Your task to perform on an android device: Open accessibility settings Image 0: 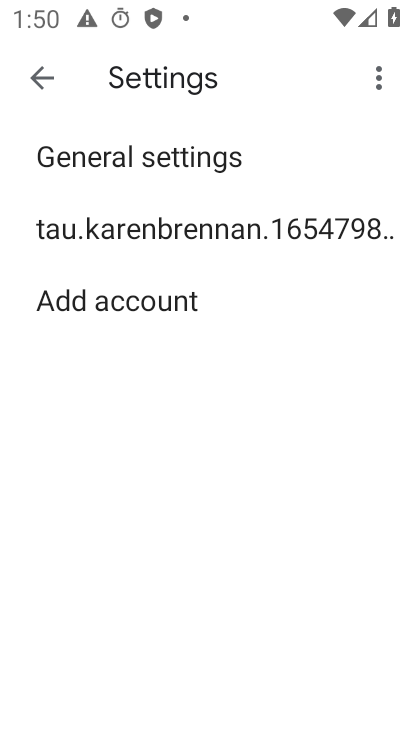
Step 0: press home button
Your task to perform on an android device: Open accessibility settings Image 1: 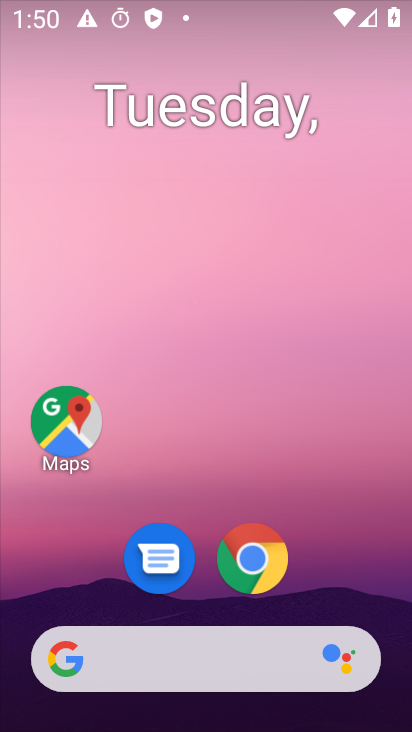
Step 1: drag from (203, 358) to (203, 90)
Your task to perform on an android device: Open accessibility settings Image 2: 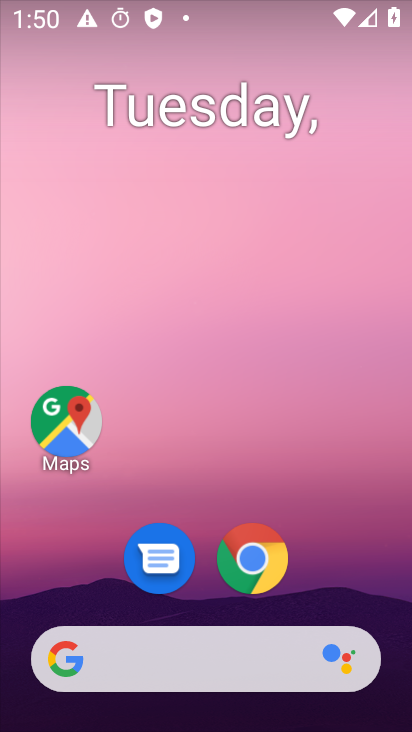
Step 2: drag from (223, 492) to (223, 76)
Your task to perform on an android device: Open accessibility settings Image 3: 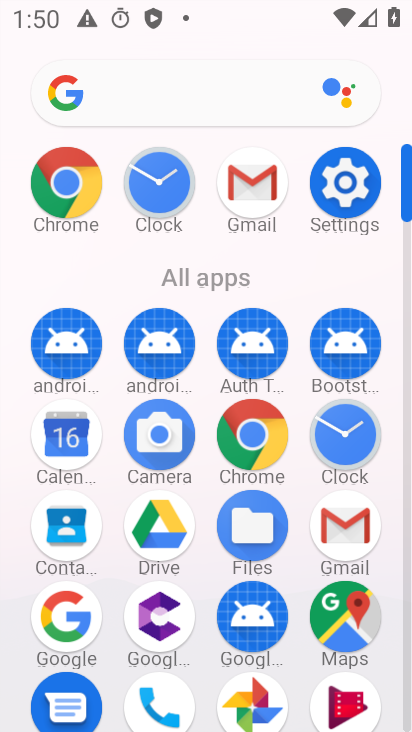
Step 3: click (334, 163)
Your task to perform on an android device: Open accessibility settings Image 4: 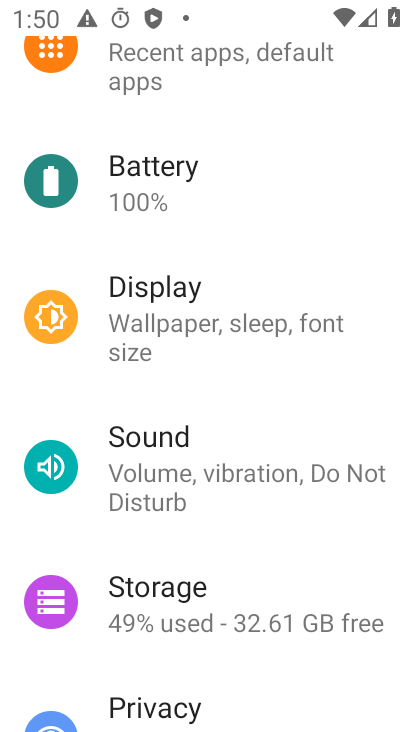
Step 4: drag from (227, 538) to (352, 185)
Your task to perform on an android device: Open accessibility settings Image 5: 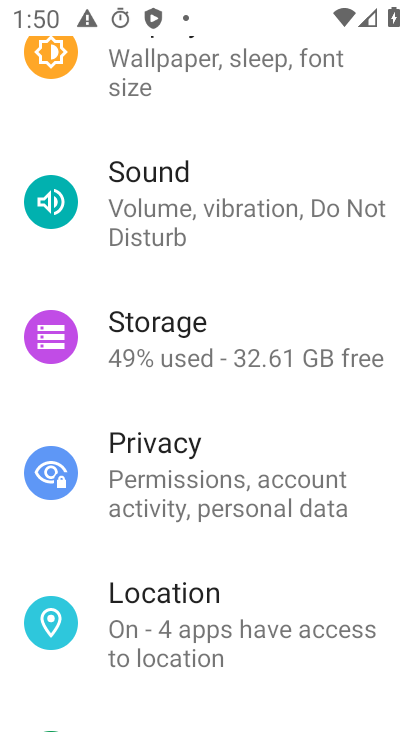
Step 5: drag from (206, 528) to (208, 155)
Your task to perform on an android device: Open accessibility settings Image 6: 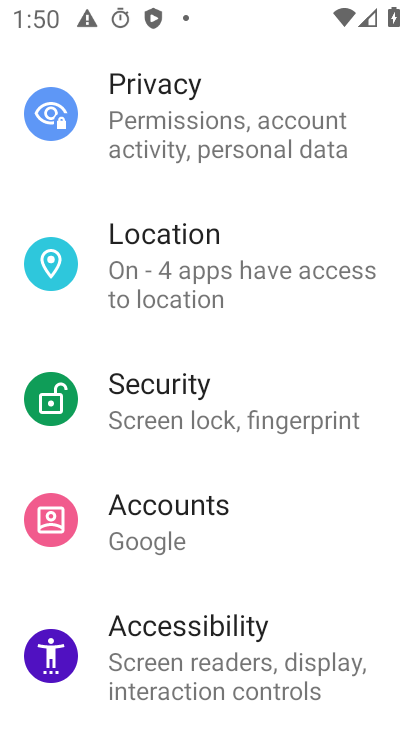
Step 6: drag from (200, 565) to (202, 146)
Your task to perform on an android device: Open accessibility settings Image 7: 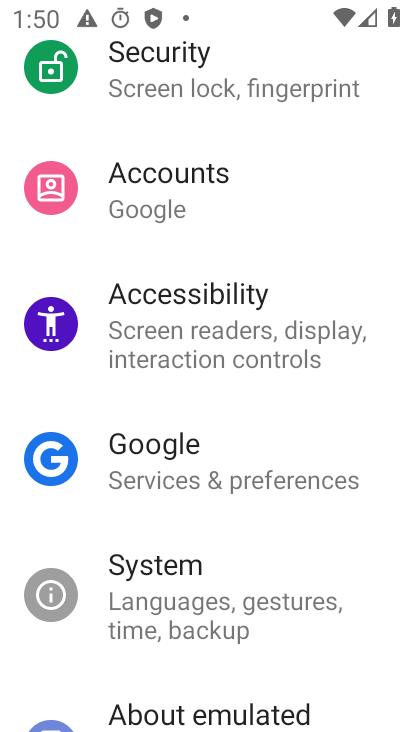
Step 7: click (199, 318)
Your task to perform on an android device: Open accessibility settings Image 8: 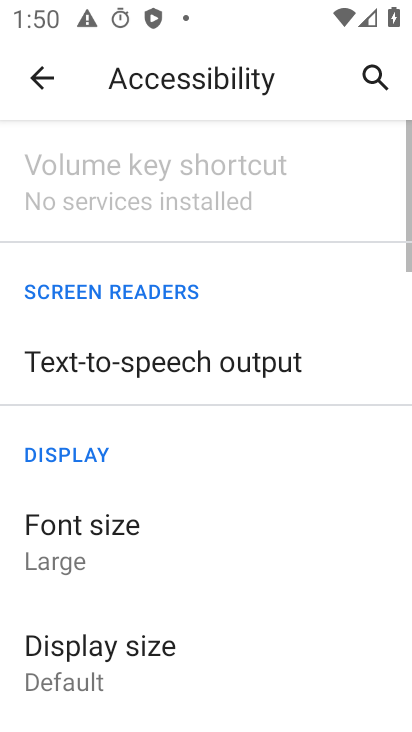
Step 8: task complete